Your task to perform on an android device: turn off data saver in the chrome app Image 0: 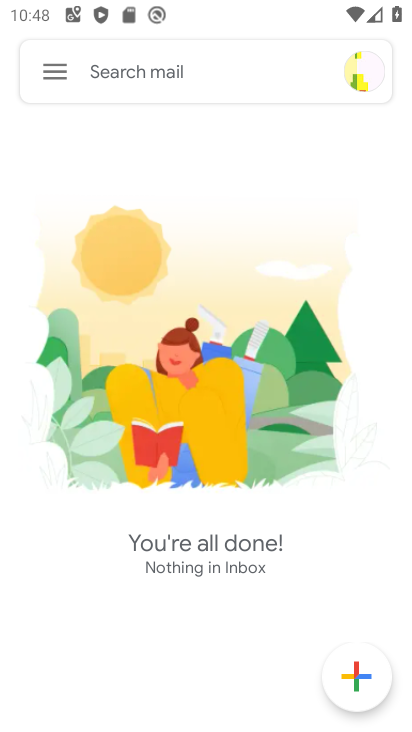
Step 0: press home button
Your task to perform on an android device: turn off data saver in the chrome app Image 1: 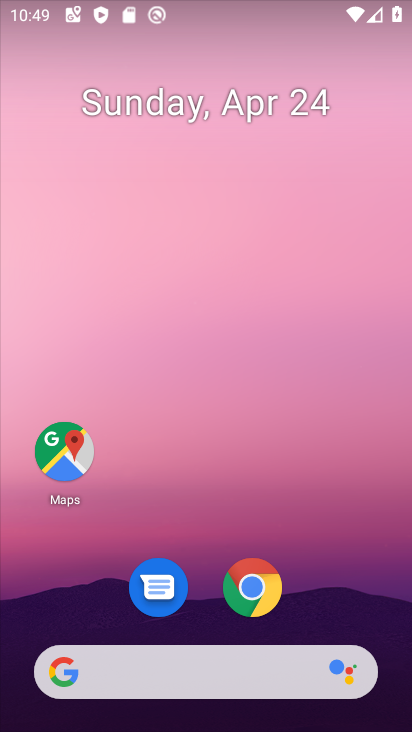
Step 1: drag from (321, 558) to (363, 165)
Your task to perform on an android device: turn off data saver in the chrome app Image 2: 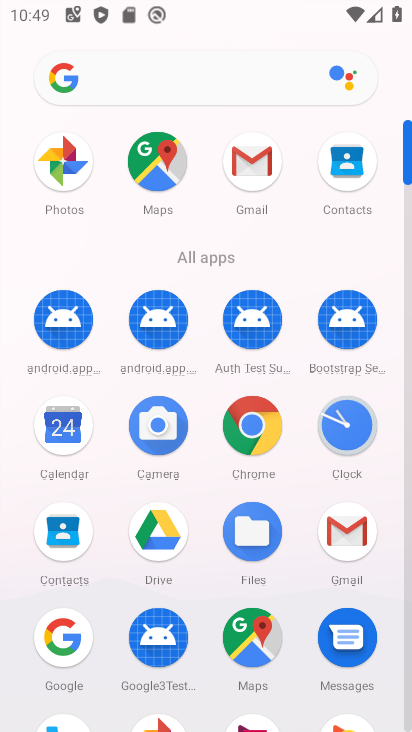
Step 2: click (251, 432)
Your task to perform on an android device: turn off data saver in the chrome app Image 3: 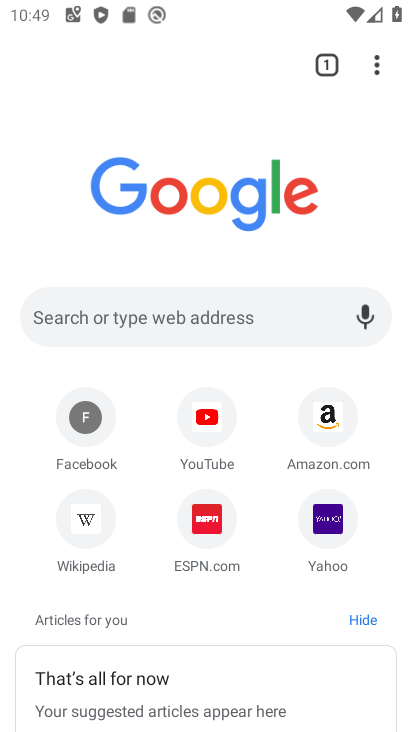
Step 3: drag from (375, 59) to (194, 564)
Your task to perform on an android device: turn off data saver in the chrome app Image 4: 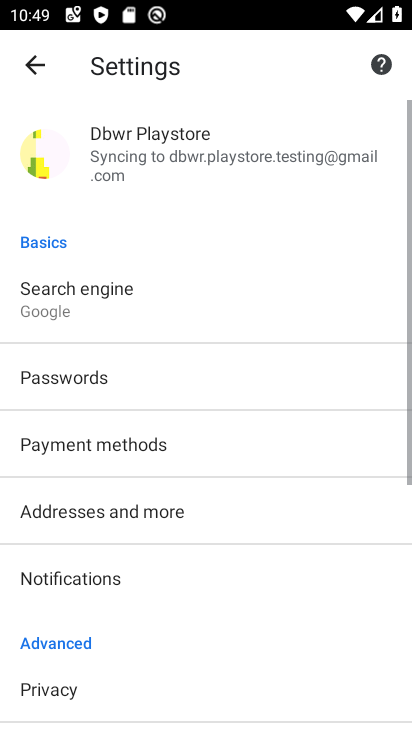
Step 4: drag from (203, 553) to (260, 99)
Your task to perform on an android device: turn off data saver in the chrome app Image 5: 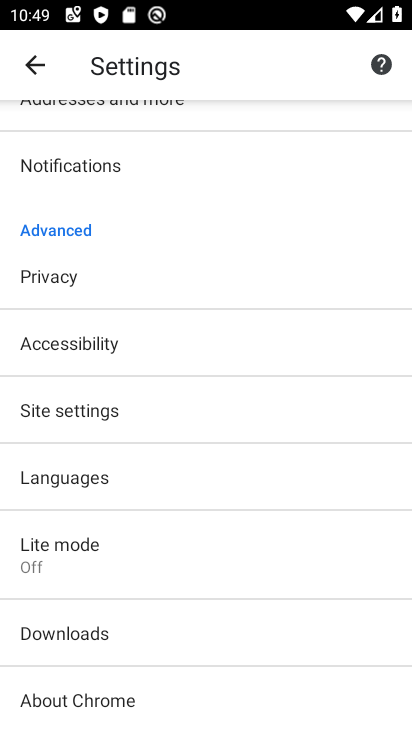
Step 5: click (91, 545)
Your task to perform on an android device: turn off data saver in the chrome app Image 6: 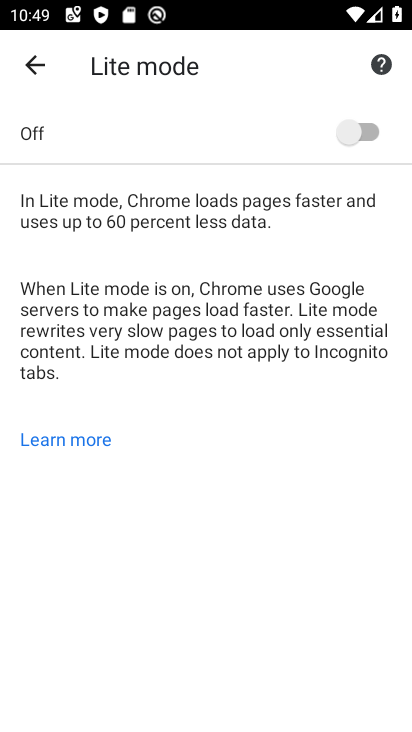
Step 6: task complete